Your task to perform on an android device: toggle translation in the chrome app Image 0: 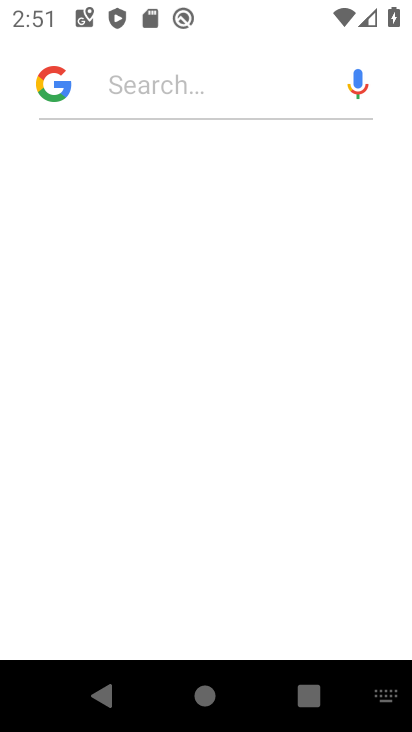
Step 0: press home button
Your task to perform on an android device: toggle translation in the chrome app Image 1: 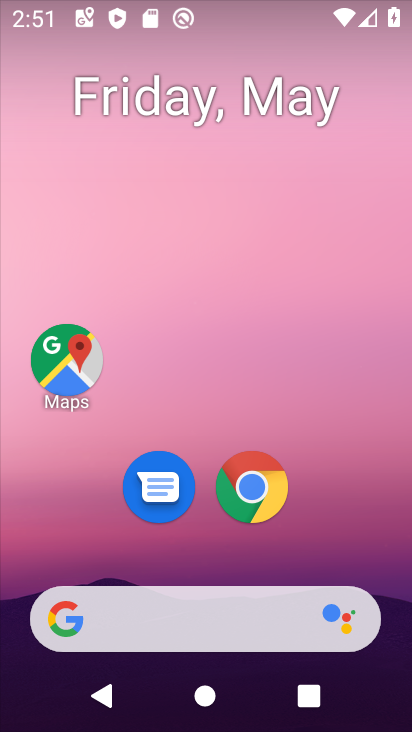
Step 1: click (278, 490)
Your task to perform on an android device: toggle translation in the chrome app Image 2: 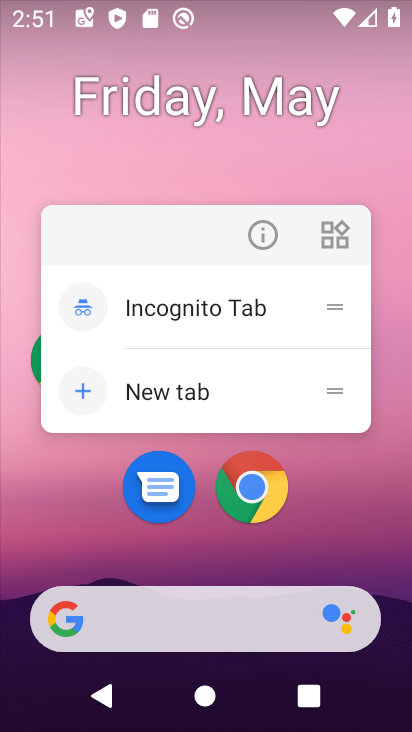
Step 2: click (273, 489)
Your task to perform on an android device: toggle translation in the chrome app Image 3: 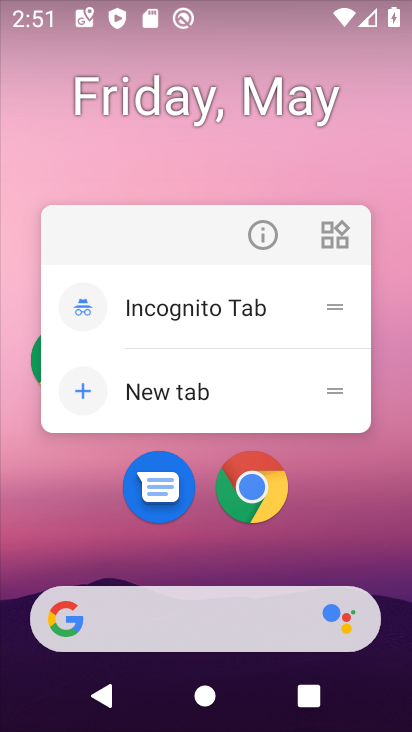
Step 3: click (266, 496)
Your task to perform on an android device: toggle translation in the chrome app Image 4: 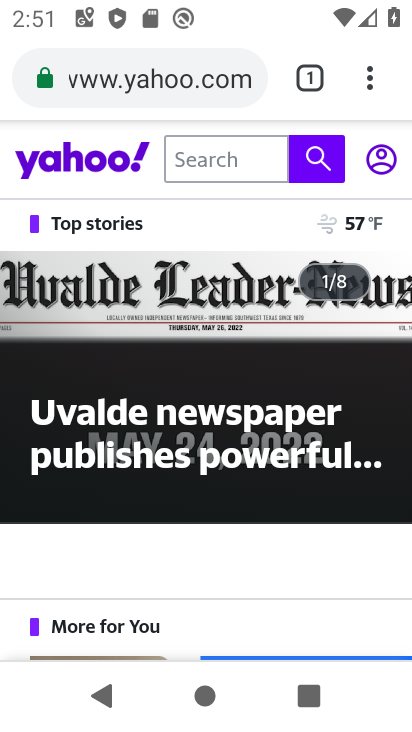
Step 4: drag from (372, 71) to (316, 554)
Your task to perform on an android device: toggle translation in the chrome app Image 5: 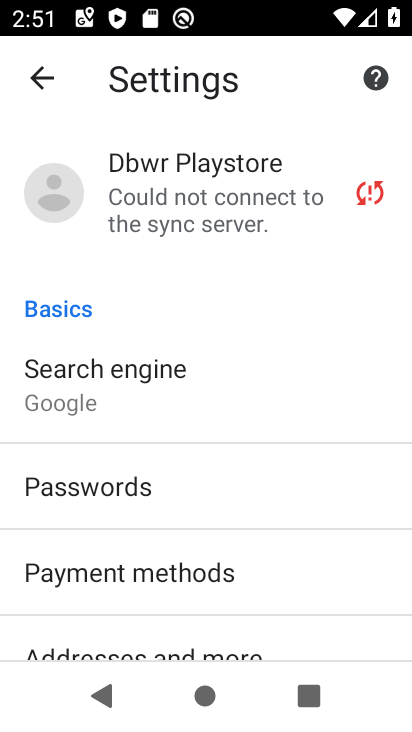
Step 5: drag from (143, 648) to (267, 228)
Your task to perform on an android device: toggle translation in the chrome app Image 6: 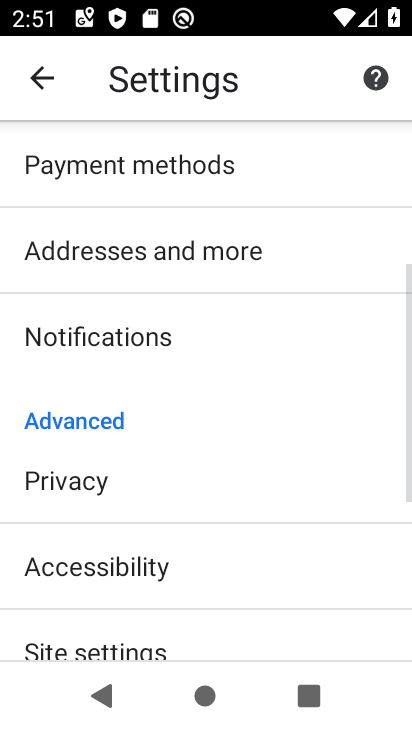
Step 6: drag from (179, 602) to (255, 300)
Your task to perform on an android device: toggle translation in the chrome app Image 7: 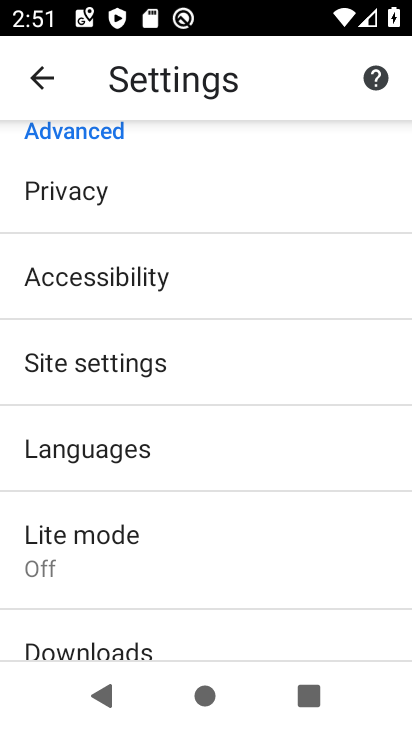
Step 7: click (142, 446)
Your task to perform on an android device: toggle translation in the chrome app Image 8: 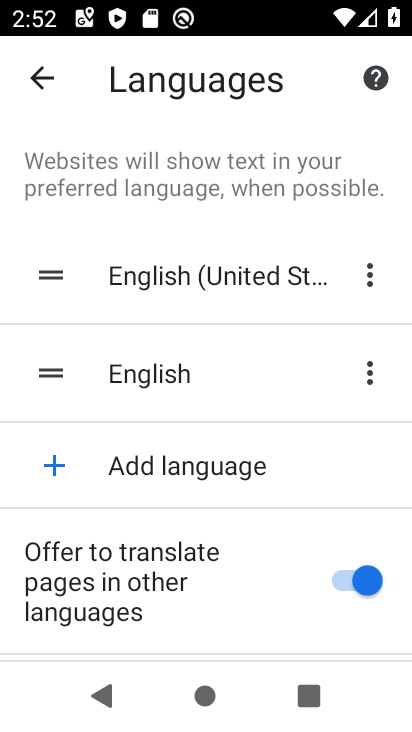
Step 8: drag from (195, 564) to (324, 258)
Your task to perform on an android device: toggle translation in the chrome app Image 9: 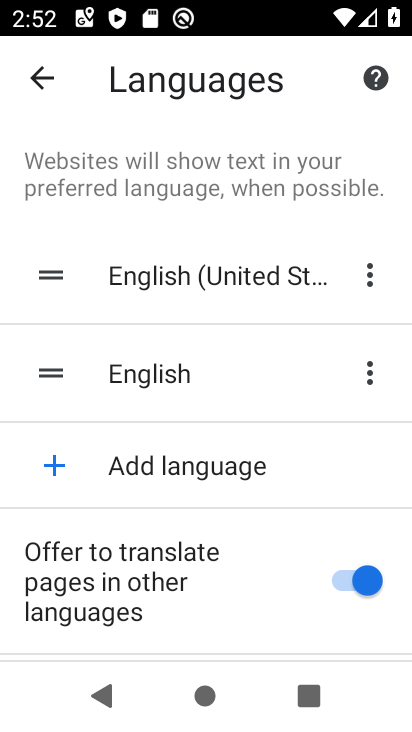
Step 9: click (351, 564)
Your task to perform on an android device: toggle translation in the chrome app Image 10: 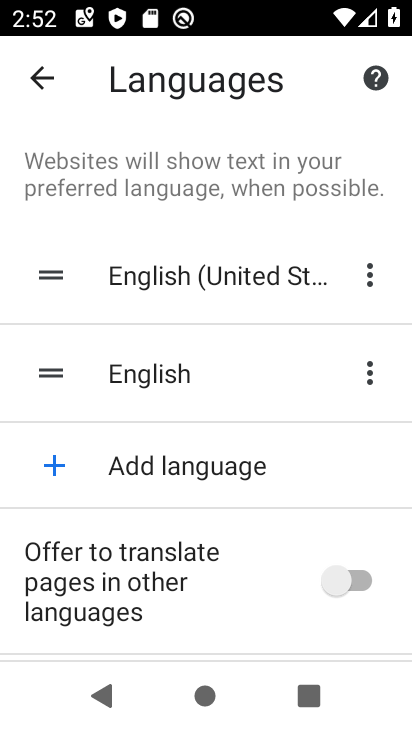
Step 10: task complete